Your task to perform on an android device: Search for Italian restaurants on Maps Image 0: 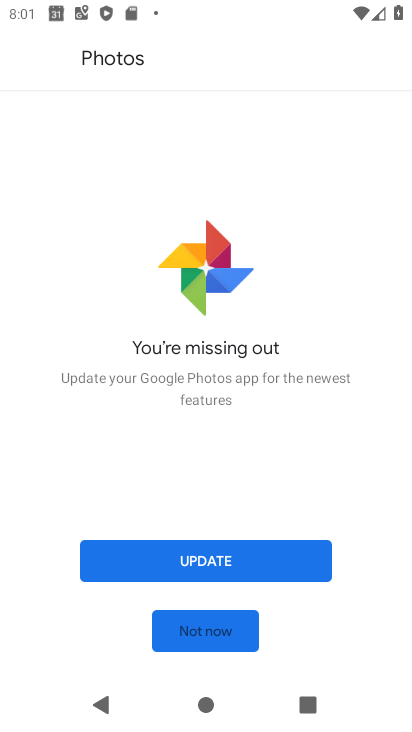
Step 0: press home button
Your task to perform on an android device: Search for Italian restaurants on Maps Image 1: 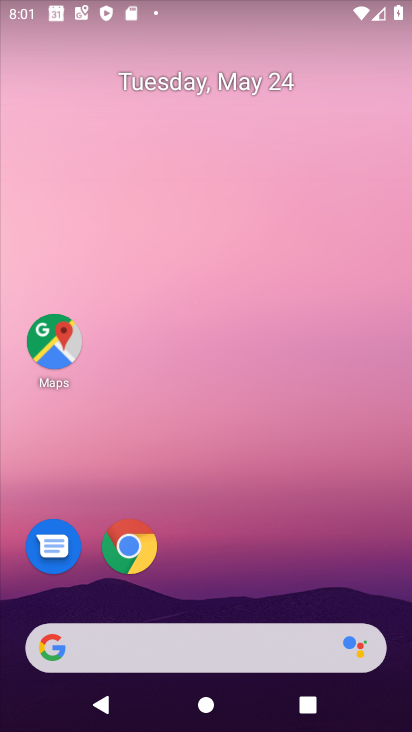
Step 1: click (65, 339)
Your task to perform on an android device: Search for Italian restaurants on Maps Image 2: 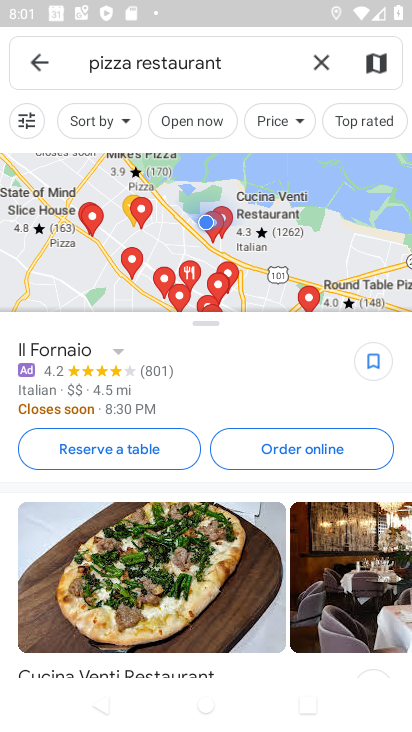
Step 2: click (321, 56)
Your task to perform on an android device: Search for Italian restaurants on Maps Image 3: 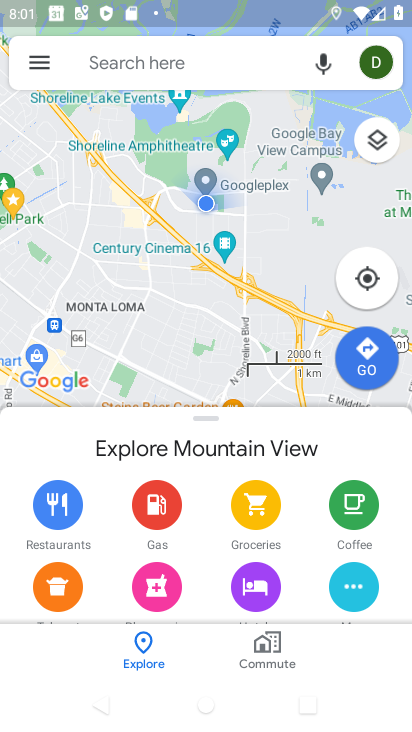
Step 3: click (201, 67)
Your task to perform on an android device: Search for Italian restaurants on Maps Image 4: 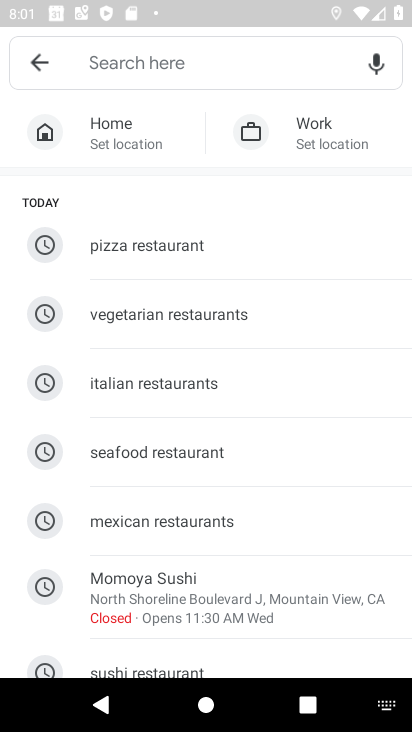
Step 4: click (101, 371)
Your task to perform on an android device: Search for Italian restaurants on Maps Image 5: 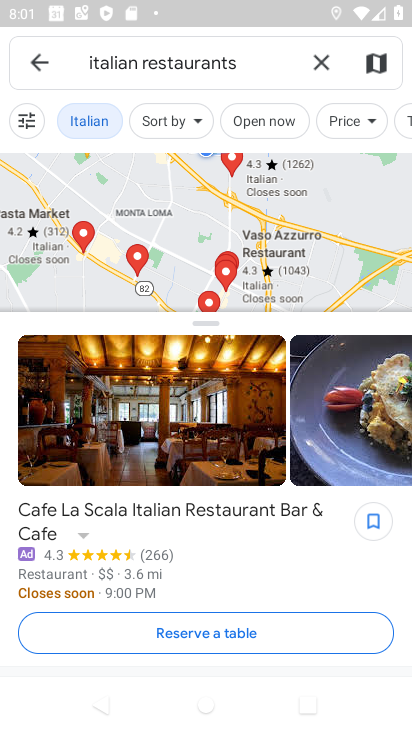
Step 5: task complete